Your task to perform on an android device: What's the weather today? Image 0: 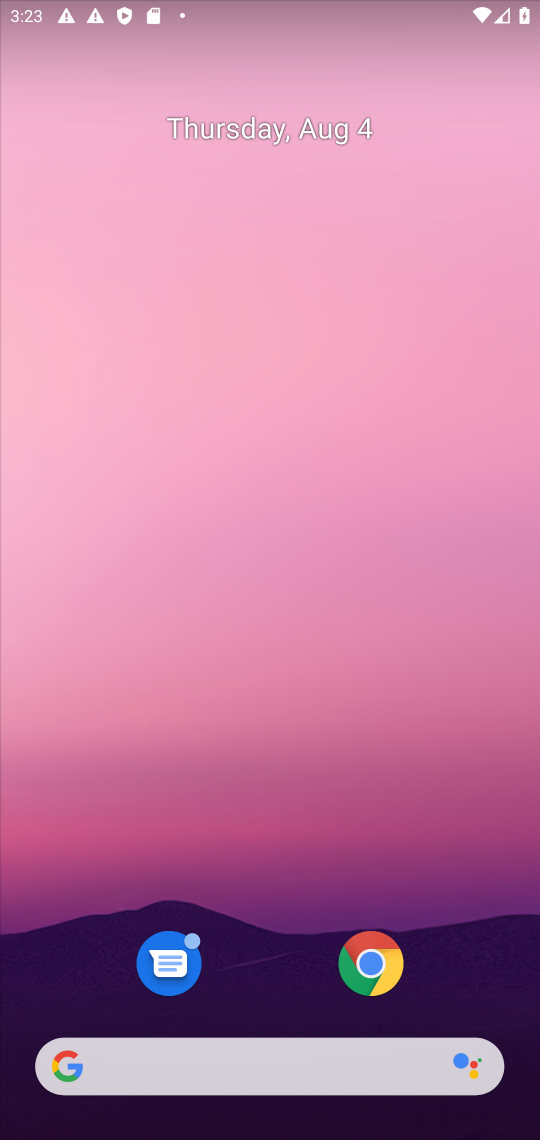
Step 0: click (237, 1068)
Your task to perform on an android device: What's the weather today? Image 1: 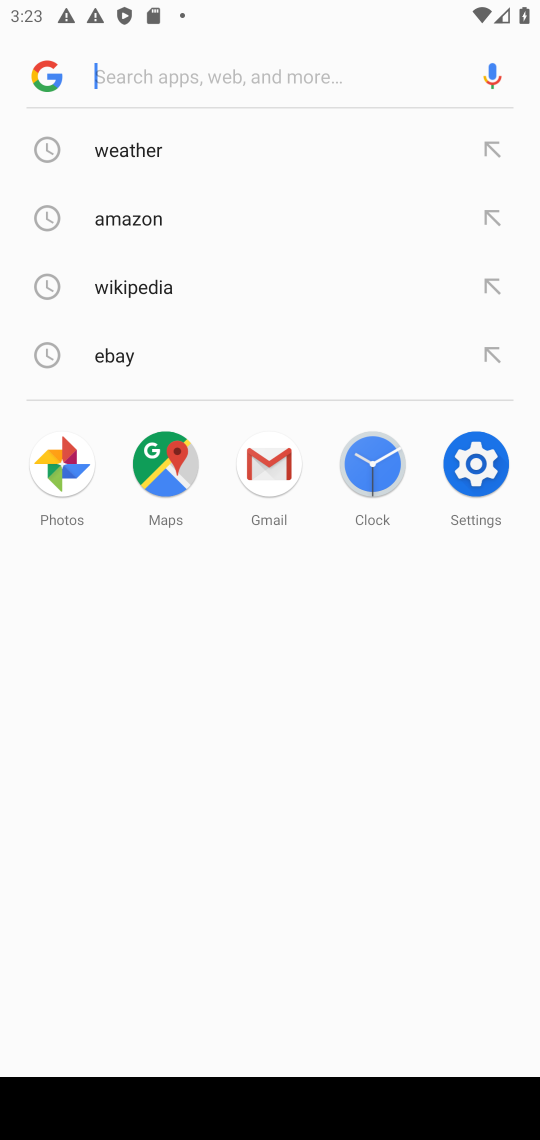
Step 1: click (114, 164)
Your task to perform on an android device: What's the weather today? Image 2: 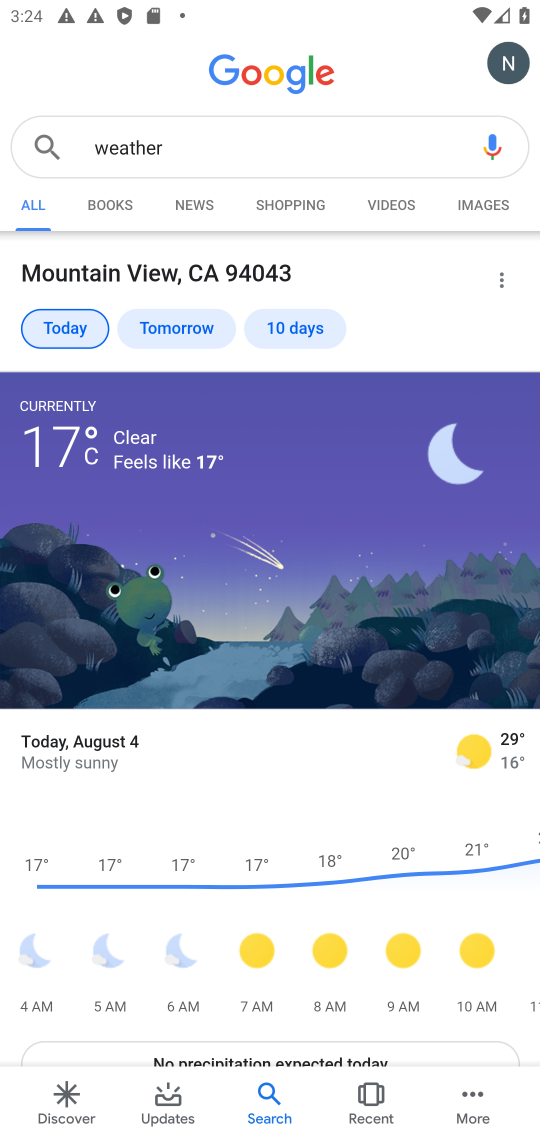
Step 2: task complete